Your task to perform on an android device: Do I have any events tomorrow? Image 0: 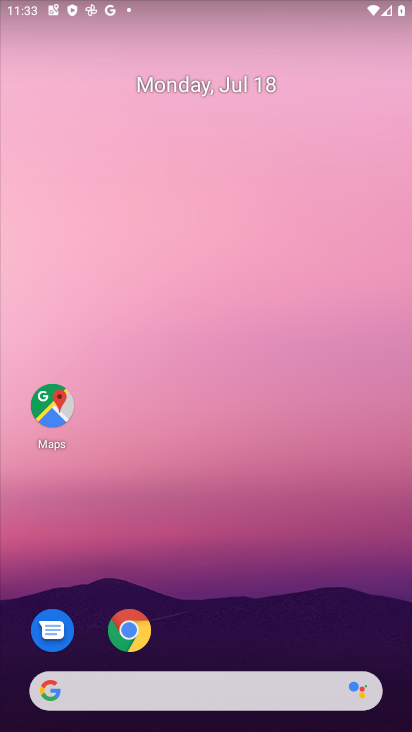
Step 0: drag from (383, 629) to (325, 140)
Your task to perform on an android device: Do I have any events tomorrow? Image 1: 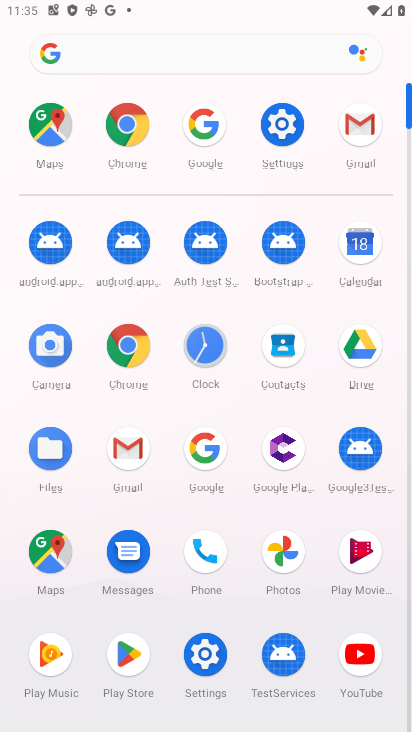
Step 1: click (358, 244)
Your task to perform on an android device: Do I have any events tomorrow? Image 2: 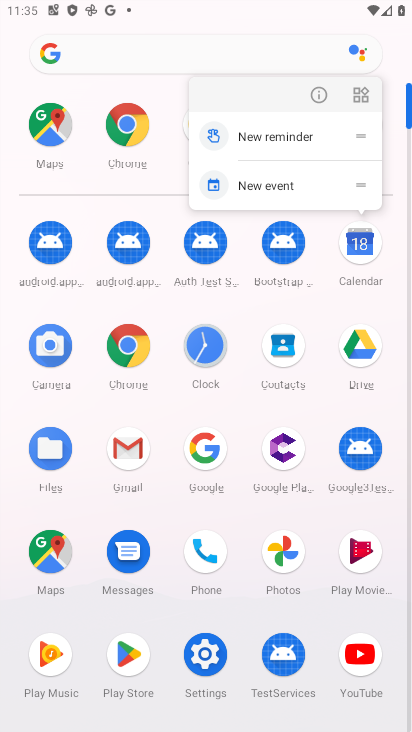
Step 2: click (357, 244)
Your task to perform on an android device: Do I have any events tomorrow? Image 3: 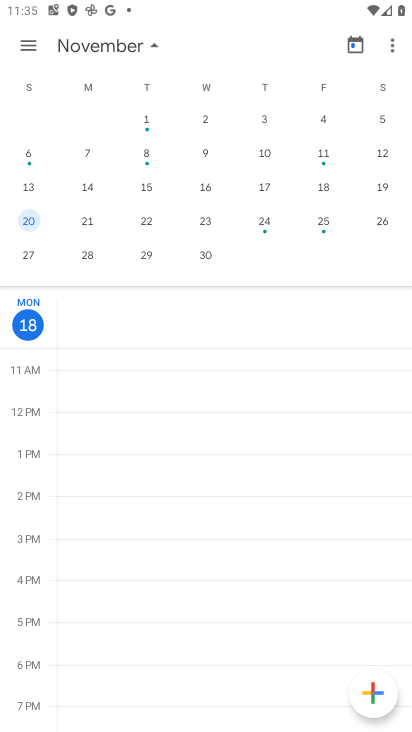
Step 3: task complete